Your task to perform on an android device: Open notification settings Image 0: 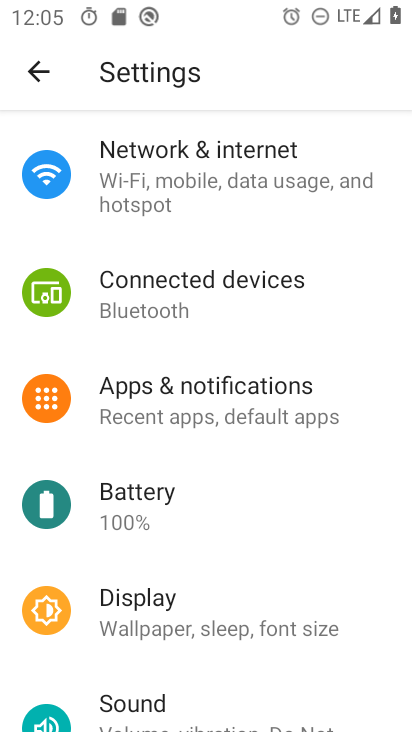
Step 0: click (237, 402)
Your task to perform on an android device: Open notification settings Image 1: 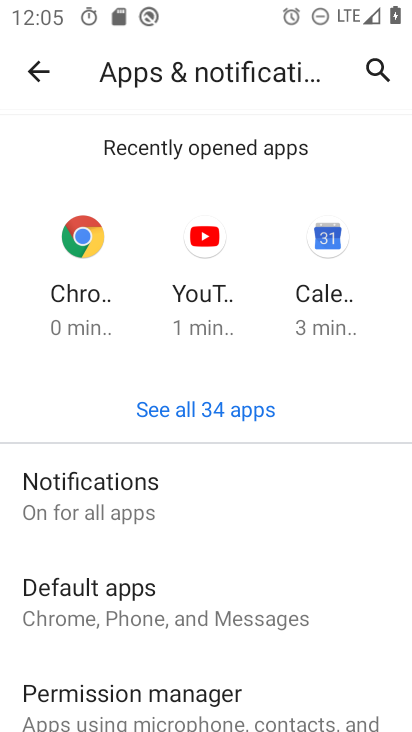
Step 1: drag from (249, 607) to (286, 222)
Your task to perform on an android device: Open notification settings Image 2: 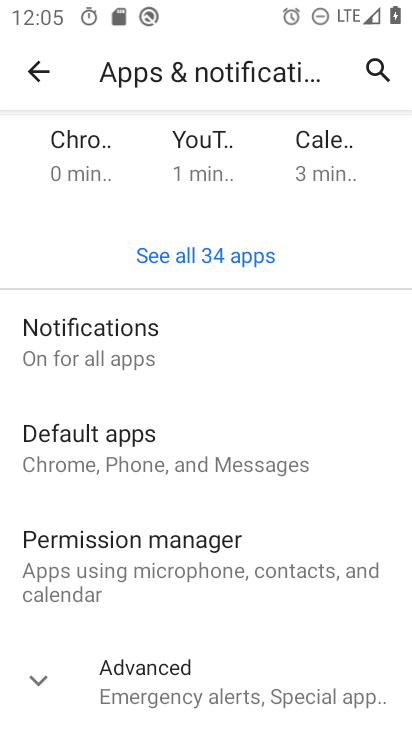
Step 2: click (121, 351)
Your task to perform on an android device: Open notification settings Image 3: 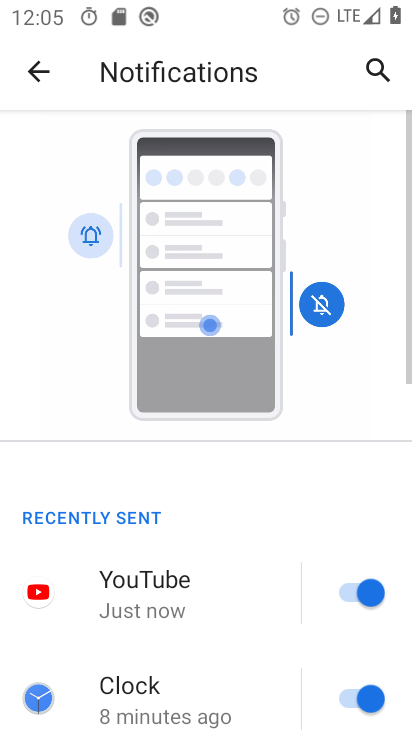
Step 3: task complete